Your task to perform on an android device: Empty the shopping cart on walmart. Image 0: 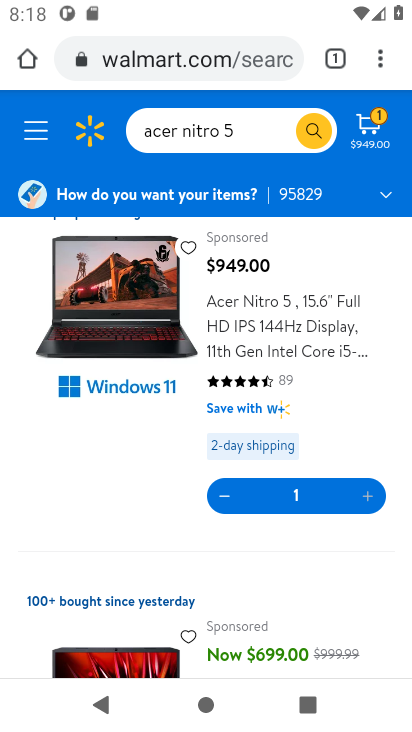
Step 0: click (173, 36)
Your task to perform on an android device: Empty the shopping cart on walmart. Image 1: 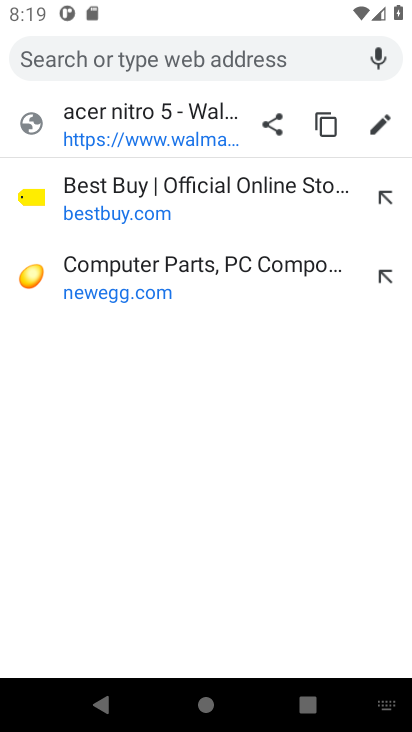
Step 1: type "walmart"
Your task to perform on an android device: Empty the shopping cart on walmart. Image 2: 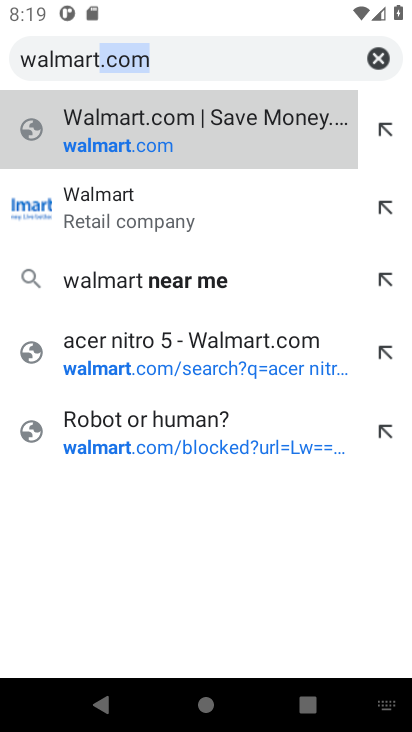
Step 2: click (115, 123)
Your task to perform on an android device: Empty the shopping cart on walmart. Image 3: 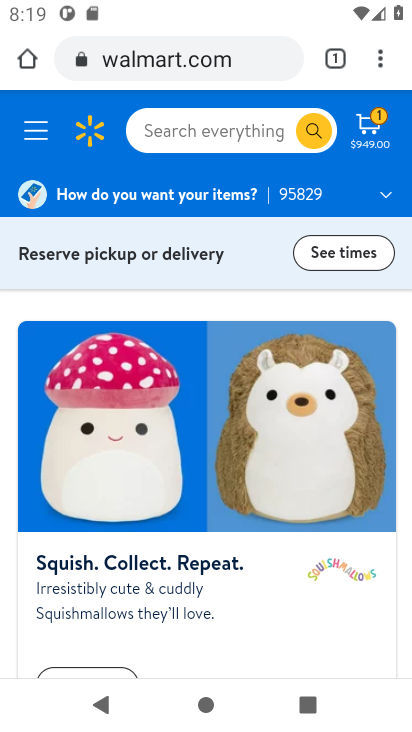
Step 3: click (364, 121)
Your task to perform on an android device: Empty the shopping cart on walmart. Image 4: 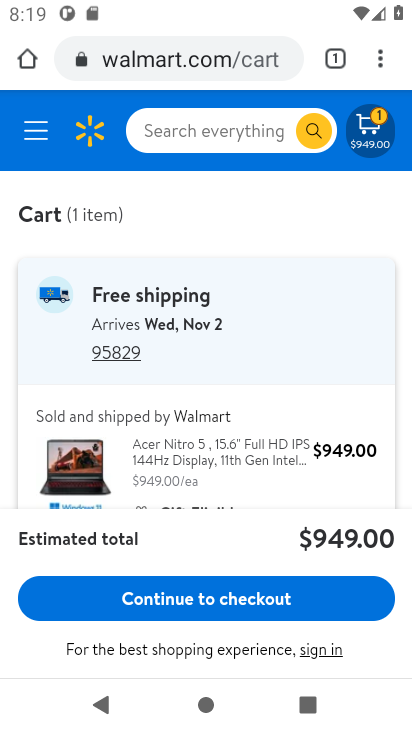
Step 4: drag from (288, 393) to (266, 82)
Your task to perform on an android device: Empty the shopping cart on walmart. Image 5: 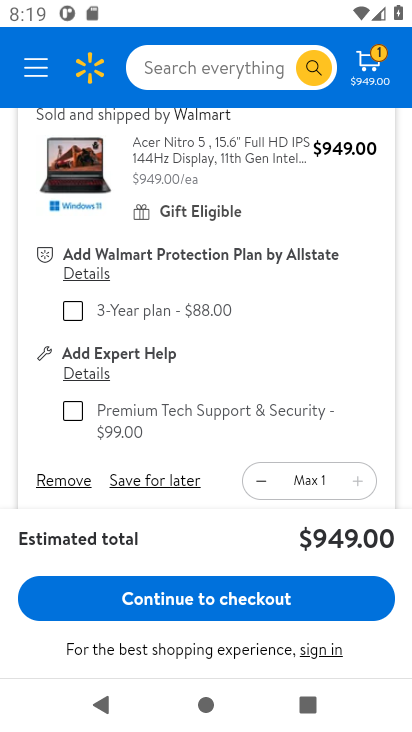
Step 5: click (52, 482)
Your task to perform on an android device: Empty the shopping cart on walmart. Image 6: 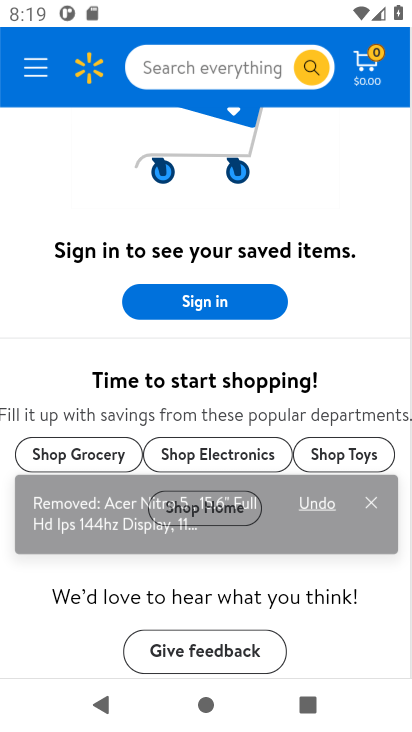
Step 6: task complete